Your task to perform on an android device: Check the weather Image 0: 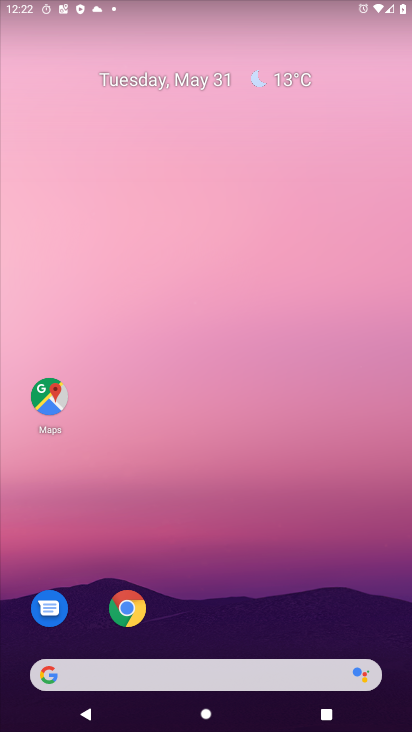
Step 0: click (295, 82)
Your task to perform on an android device: Check the weather Image 1: 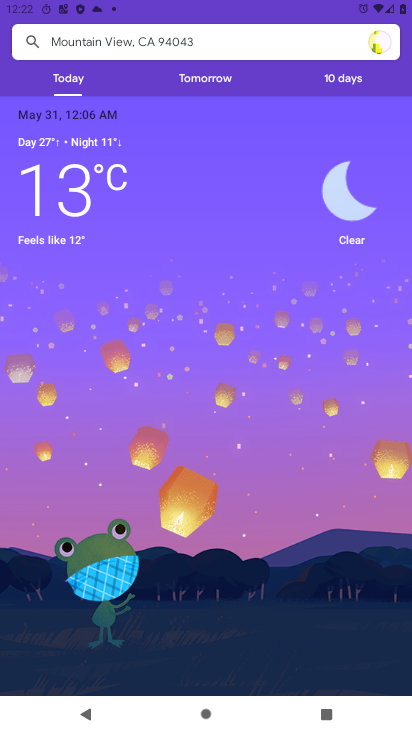
Step 1: task complete